Your task to perform on an android device: What's the weather? Image 0: 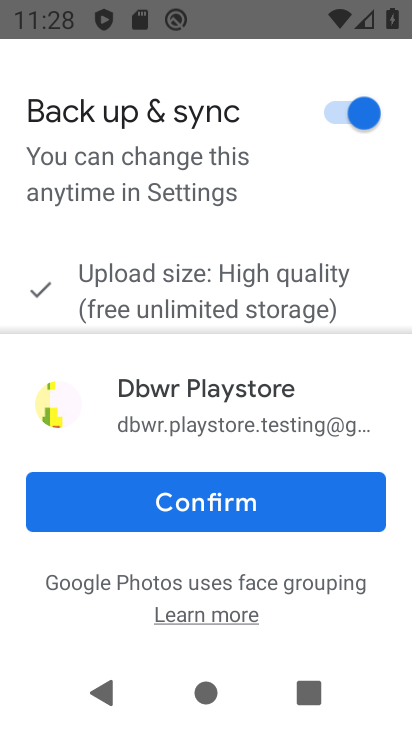
Step 0: press home button
Your task to perform on an android device: What's the weather? Image 1: 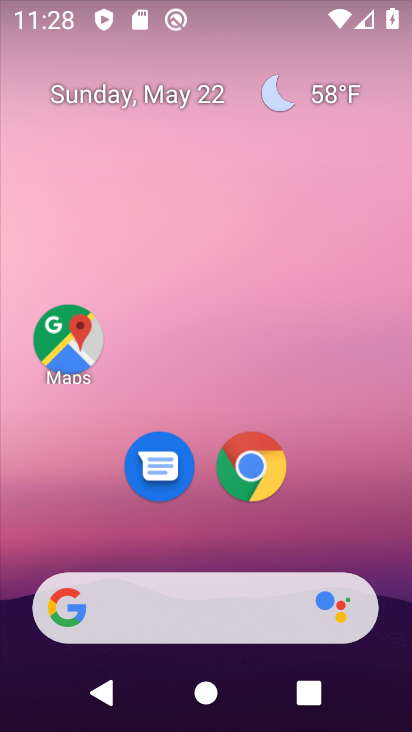
Step 1: drag from (205, 541) to (223, 60)
Your task to perform on an android device: What's the weather? Image 2: 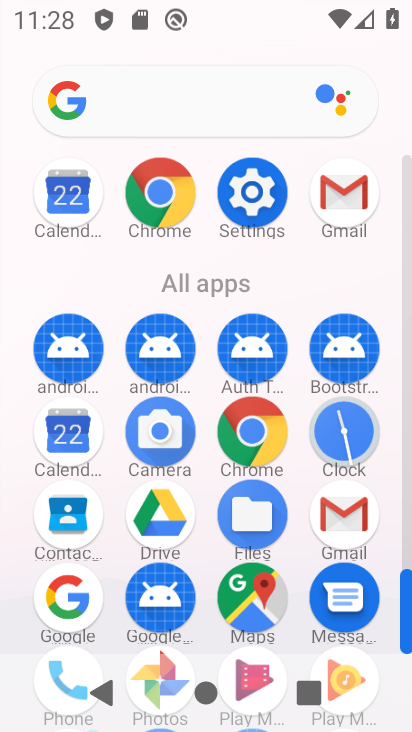
Step 2: click (60, 604)
Your task to perform on an android device: What's the weather? Image 3: 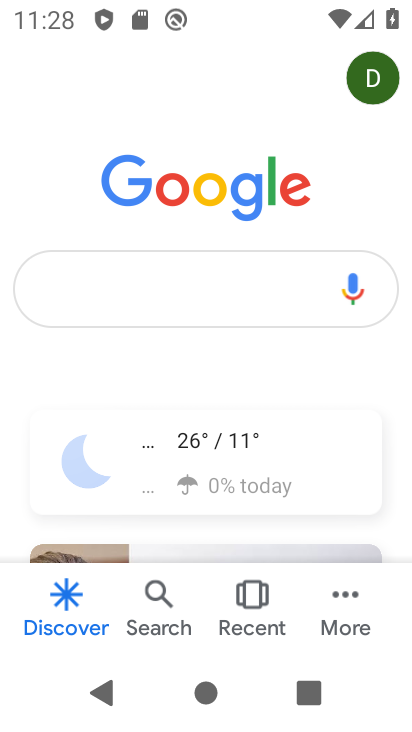
Step 3: click (123, 294)
Your task to perform on an android device: What's the weather? Image 4: 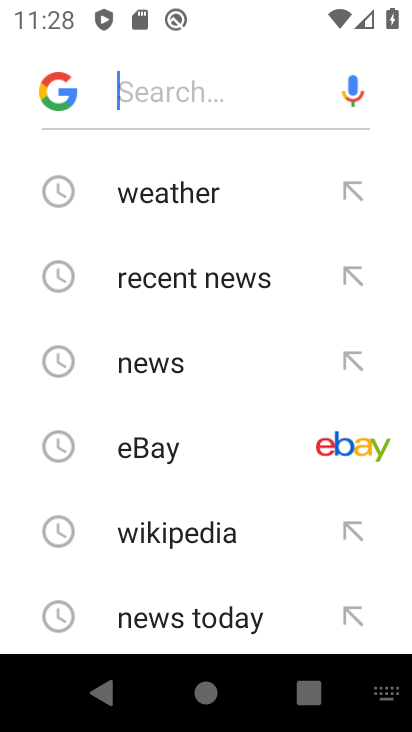
Step 4: click (147, 201)
Your task to perform on an android device: What's the weather? Image 5: 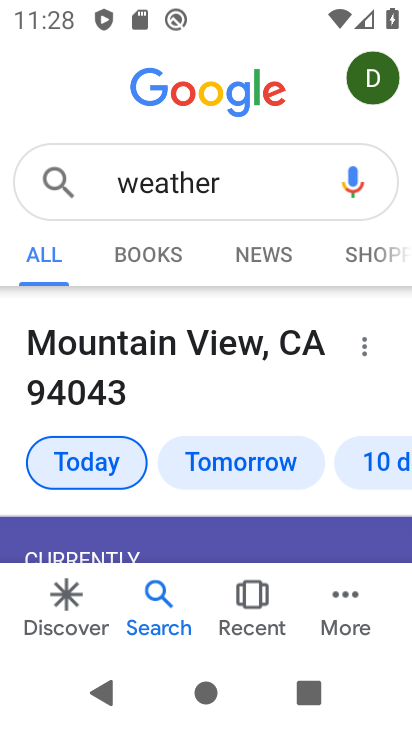
Step 5: task complete